Your task to perform on an android device: turn off sleep mode Image 0: 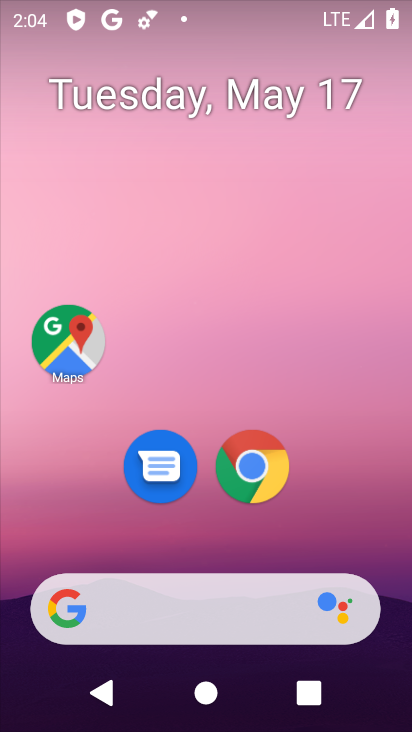
Step 0: drag from (352, 534) to (353, 46)
Your task to perform on an android device: turn off sleep mode Image 1: 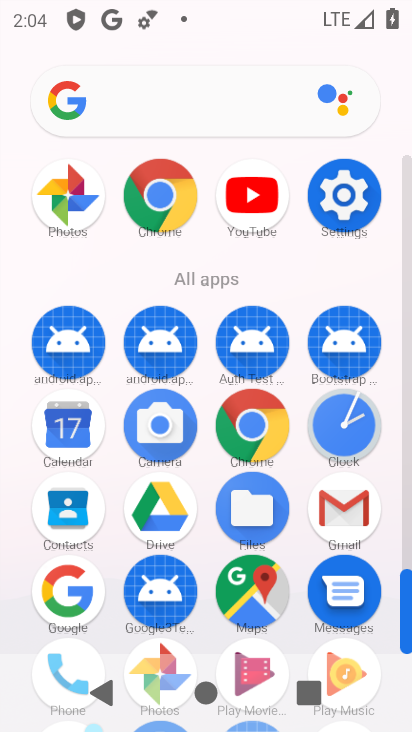
Step 1: click (356, 215)
Your task to perform on an android device: turn off sleep mode Image 2: 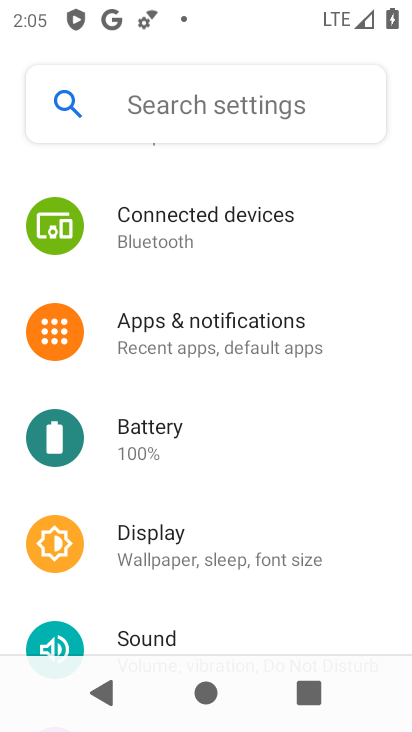
Step 2: drag from (188, 578) to (212, 198)
Your task to perform on an android device: turn off sleep mode Image 3: 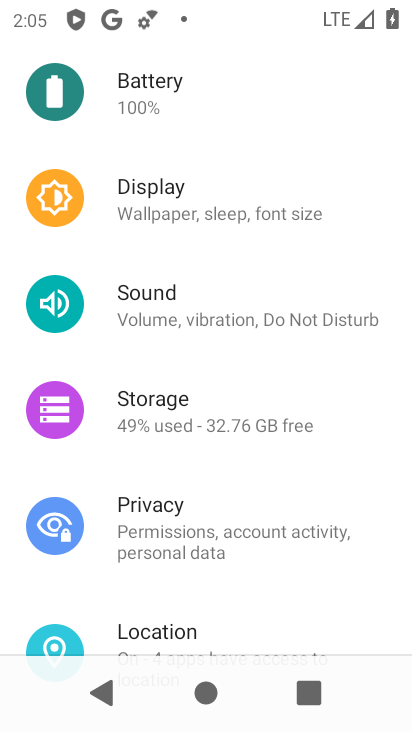
Step 3: click (187, 210)
Your task to perform on an android device: turn off sleep mode Image 4: 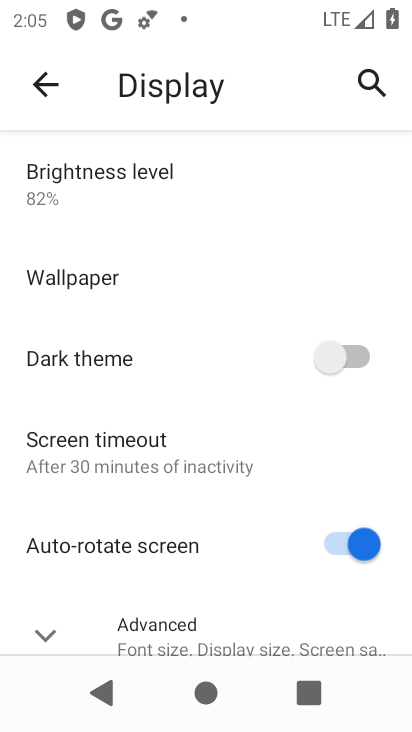
Step 4: click (154, 431)
Your task to perform on an android device: turn off sleep mode Image 5: 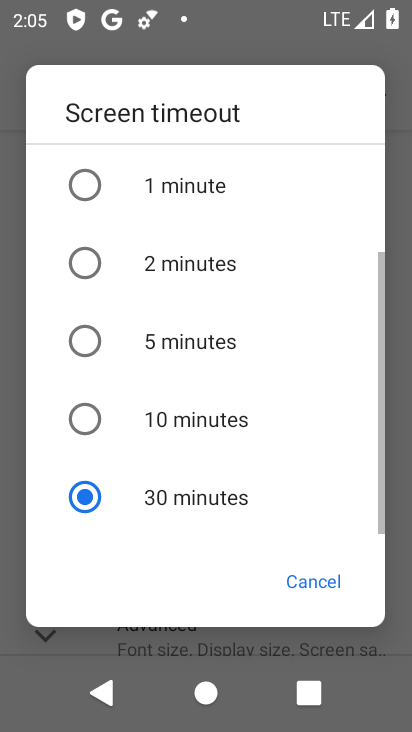
Step 5: task complete